Your task to perform on an android device: Check the news Image 0: 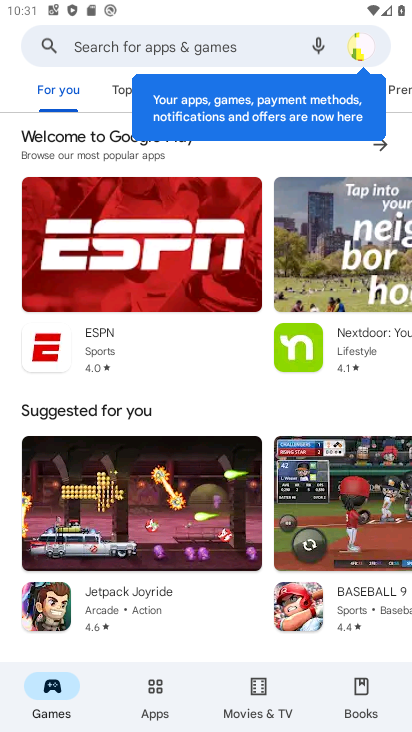
Step 0: press home button
Your task to perform on an android device: Check the news Image 1: 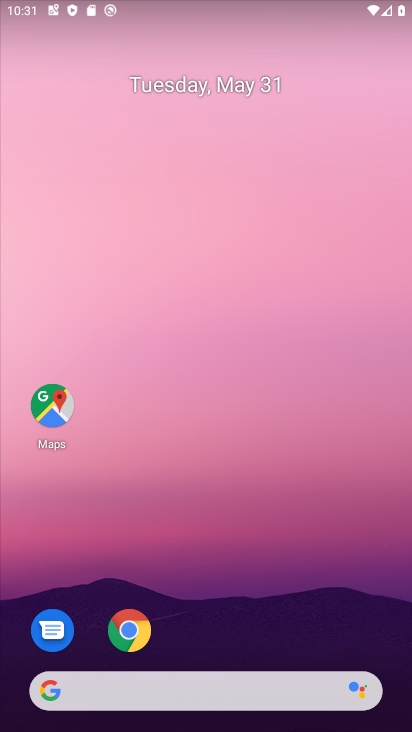
Step 1: click (147, 690)
Your task to perform on an android device: Check the news Image 2: 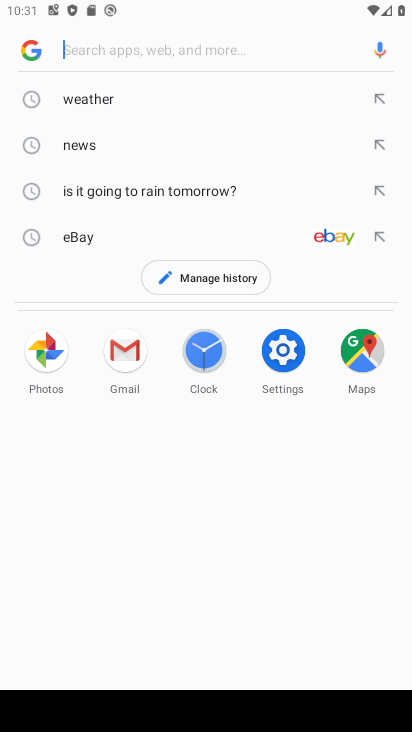
Step 2: click (86, 151)
Your task to perform on an android device: Check the news Image 3: 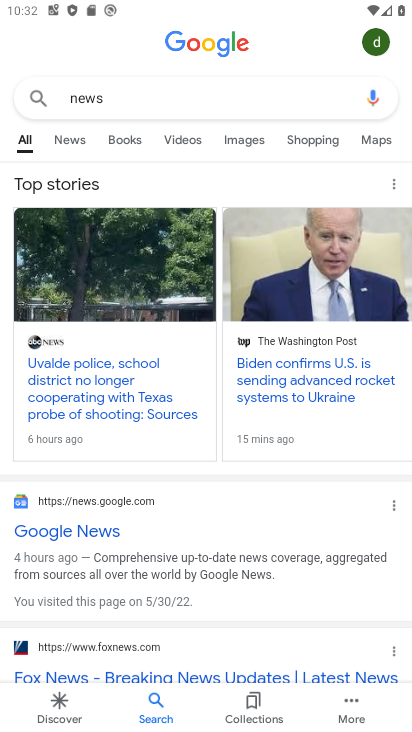
Step 3: task complete